Your task to perform on an android device: turn on the 12-hour format for clock Image 0: 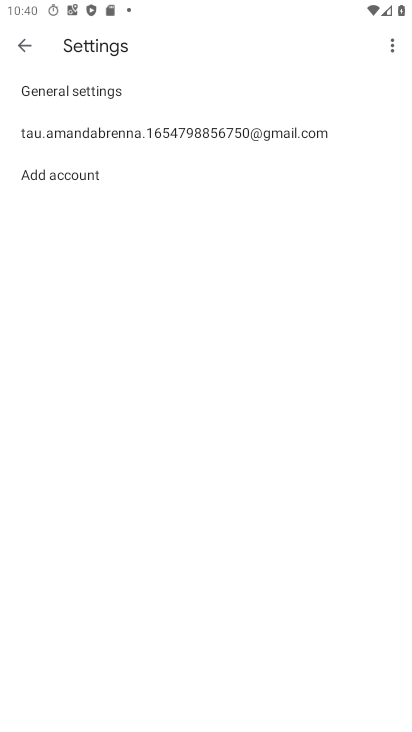
Step 0: press home button
Your task to perform on an android device: turn on the 12-hour format for clock Image 1: 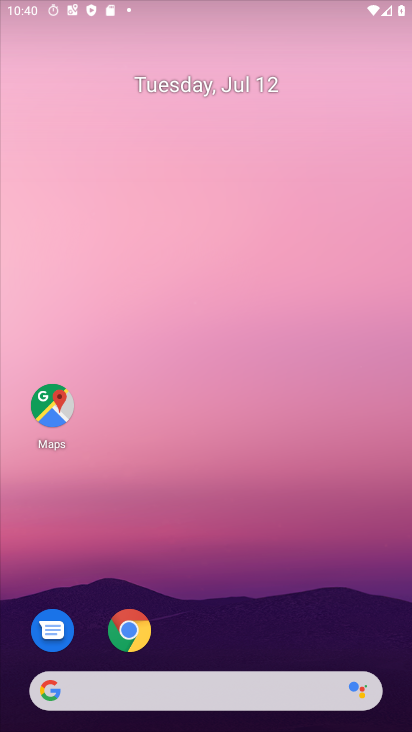
Step 1: drag from (231, 622) to (231, 134)
Your task to perform on an android device: turn on the 12-hour format for clock Image 2: 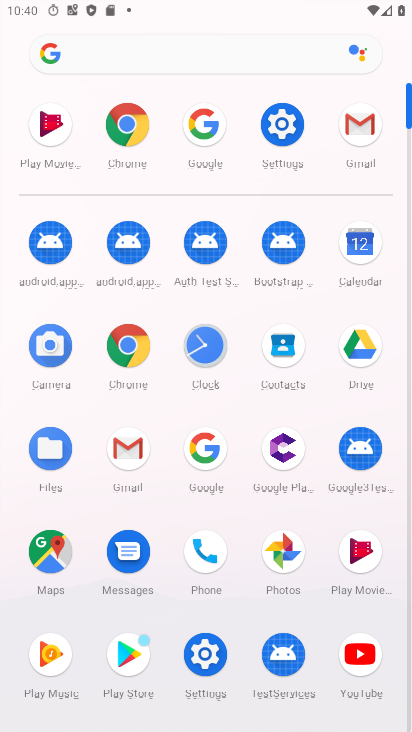
Step 2: click (205, 346)
Your task to perform on an android device: turn on the 12-hour format for clock Image 3: 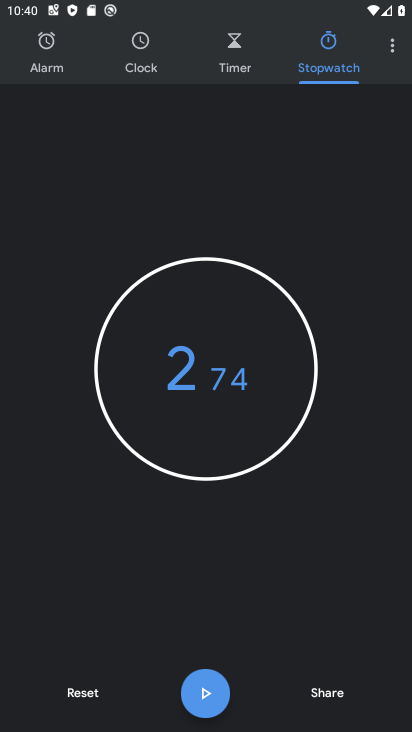
Step 3: click (383, 44)
Your task to perform on an android device: turn on the 12-hour format for clock Image 4: 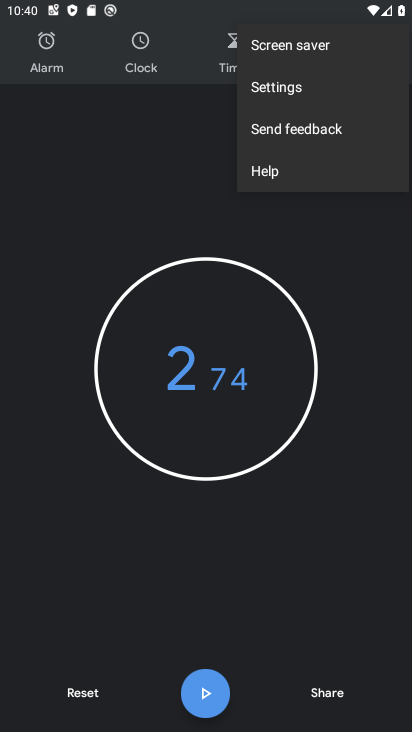
Step 4: click (237, 84)
Your task to perform on an android device: turn on the 12-hour format for clock Image 5: 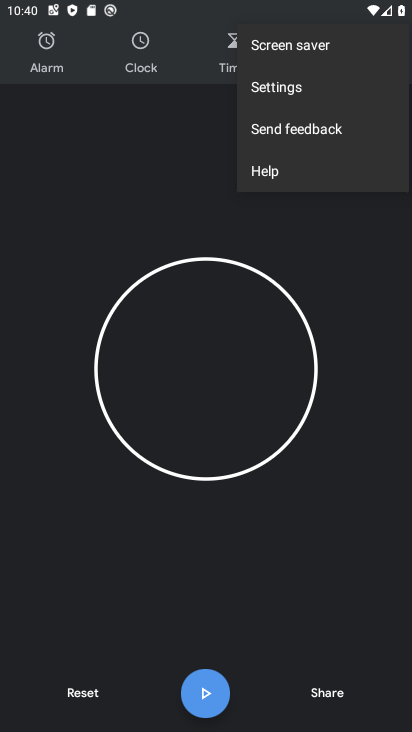
Step 5: click (264, 85)
Your task to perform on an android device: turn on the 12-hour format for clock Image 6: 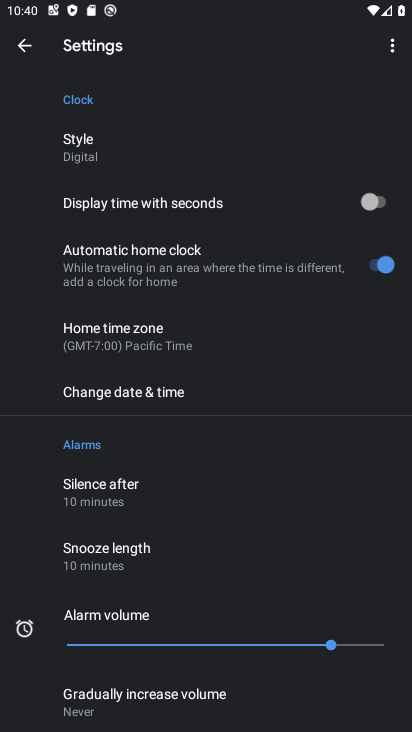
Step 6: drag from (222, 628) to (262, 194)
Your task to perform on an android device: turn on the 12-hour format for clock Image 7: 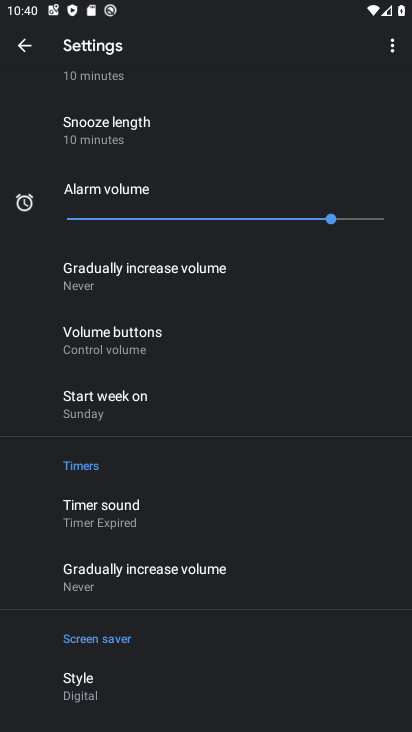
Step 7: drag from (168, 121) to (236, 448)
Your task to perform on an android device: turn on the 12-hour format for clock Image 8: 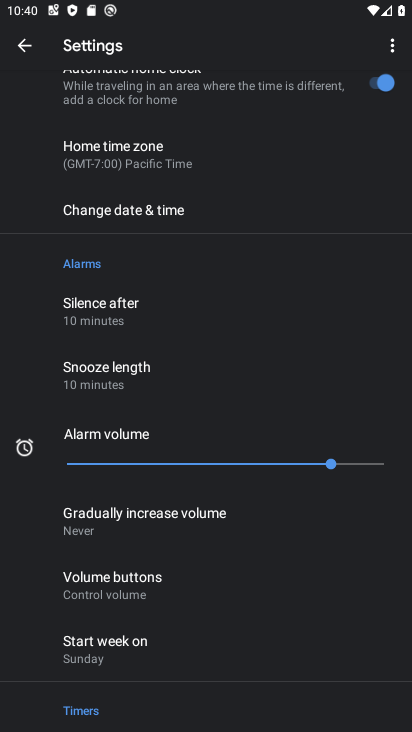
Step 8: click (128, 207)
Your task to perform on an android device: turn on the 12-hour format for clock Image 9: 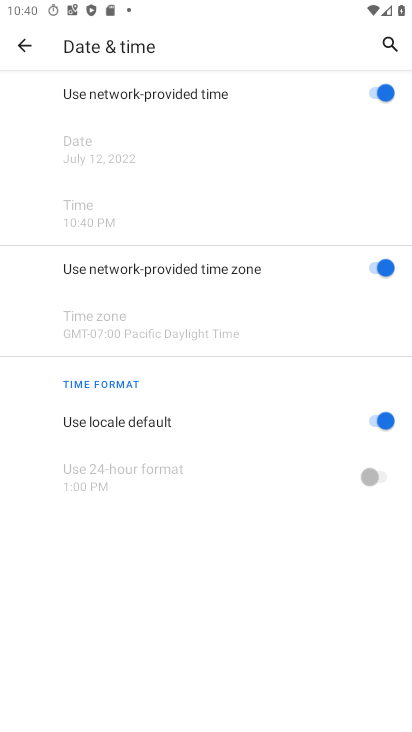
Step 9: click (373, 423)
Your task to perform on an android device: turn on the 12-hour format for clock Image 10: 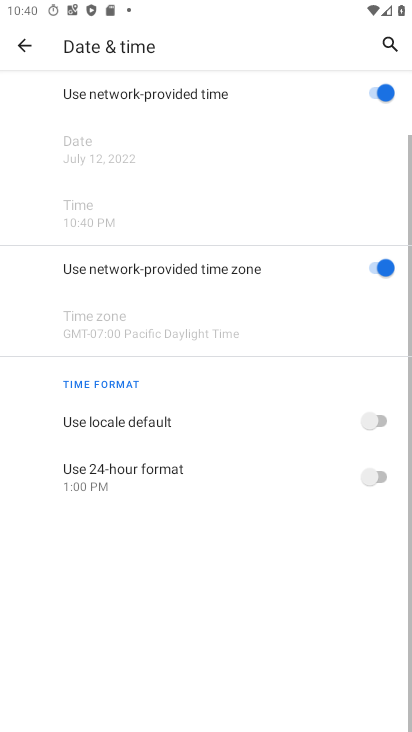
Step 10: click (373, 423)
Your task to perform on an android device: turn on the 12-hour format for clock Image 11: 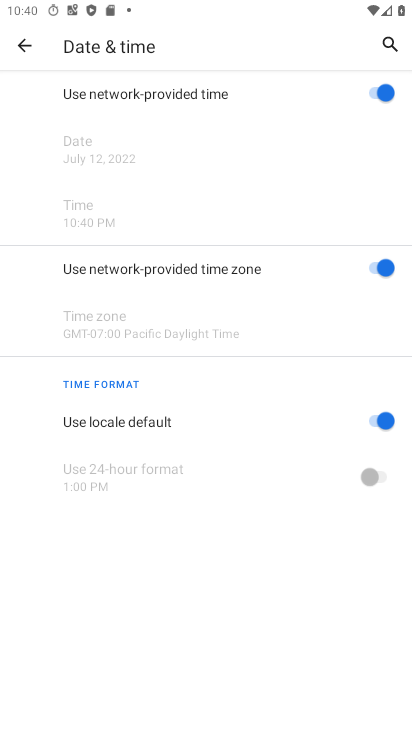
Step 11: task complete